Your task to perform on an android device: Show me popular games on the Play Store Image 0: 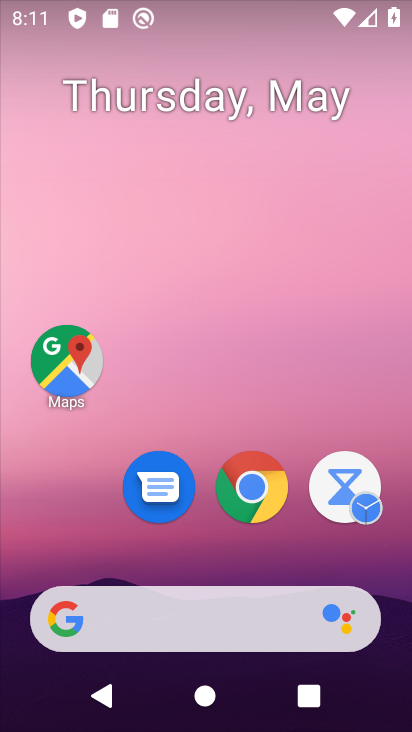
Step 0: drag from (303, 557) to (324, 146)
Your task to perform on an android device: Show me popular games on the Play Store Image 1: 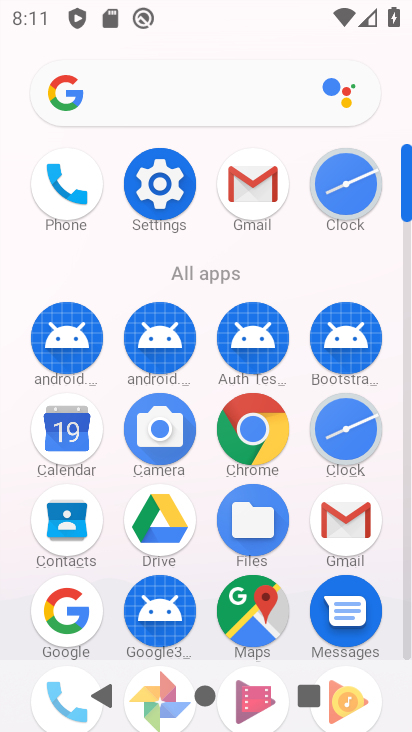
Step 1: drag from (397, 598) to (390, 327)
Your task to perform on an android device: Show me popular games on the Play Store Image 2: 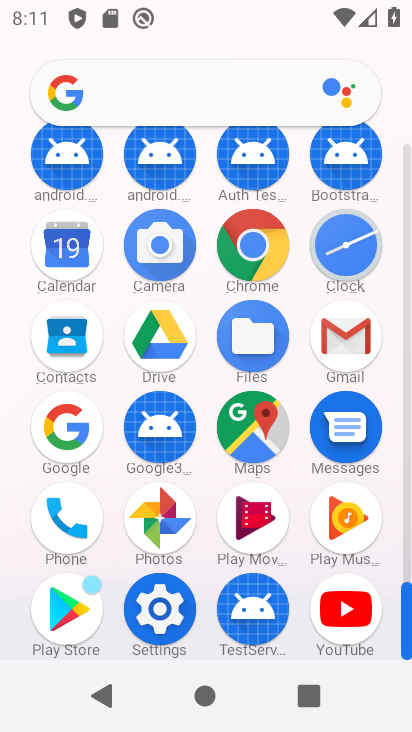
Step 2: click (66, 624)
Your task to perform on an android device: Show me popular games on the Play Store Image 3: 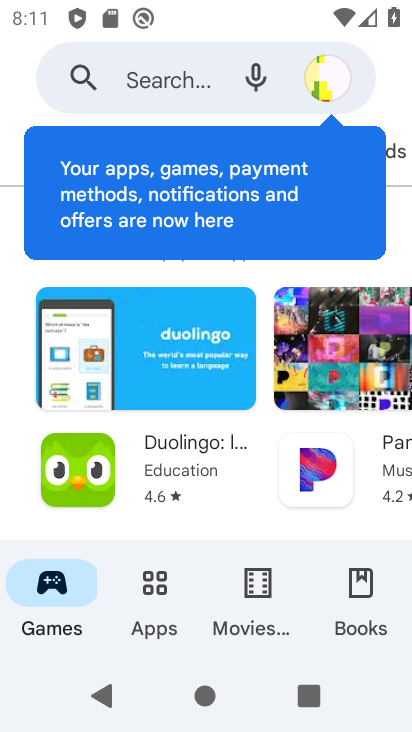
Step 3: task complete